Your task to perform on an android device: turn on airplane mode Image 0: 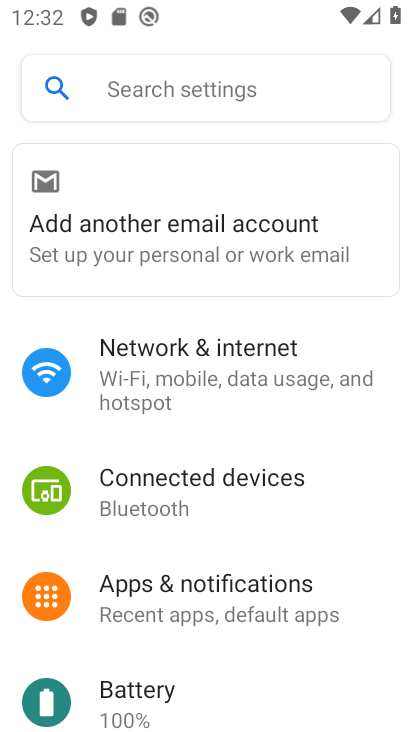
Step 0: task complete